Your task to perform on an android device: Play the last video I watched on Youtube Image 0: 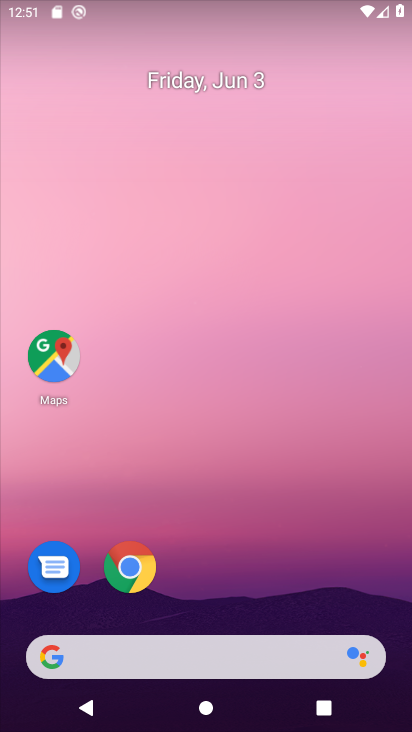
Step 0: drag from (228, 623) to (222, 333)
Your task to perform on an android device: Play the last video I watched on Youtube Image 1: 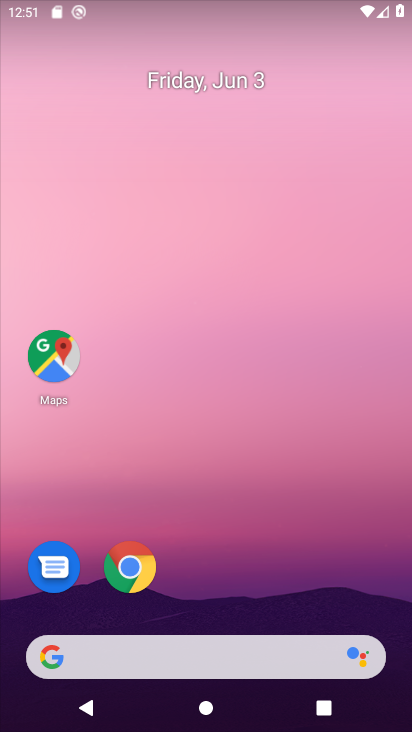
Step 1: drag from (230, 536) to (245, 233)
Your task to perform on an android device: Play the last video I watched on Youtube Image 2: 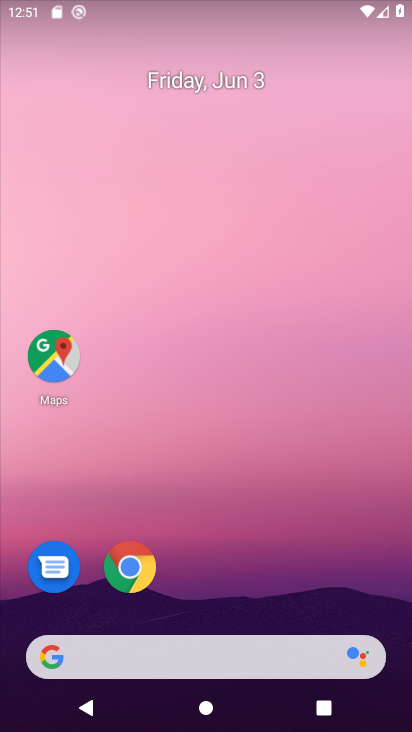
Step 2: drag from (189, 479) to (205, 266)
Your task to perform on an android device: Play the last video I watched on Youtube Image 3: 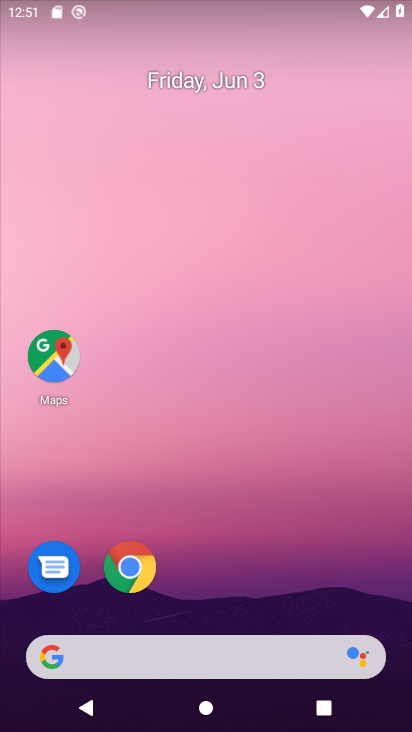
Step 3: drag from (162, 683) to (187, 263)
Your task to perform on an android device: Play the last video I watched on Youtube Image 4: 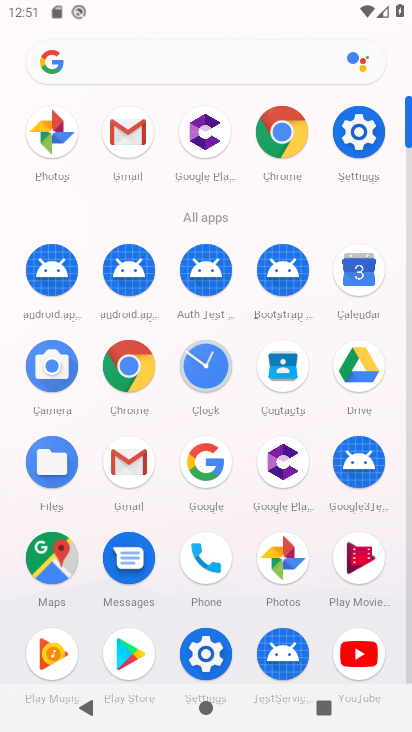
Step 4: click (348, 656)
Your task to perform on an android device: Play the last video I watched on Youtube Image 5: 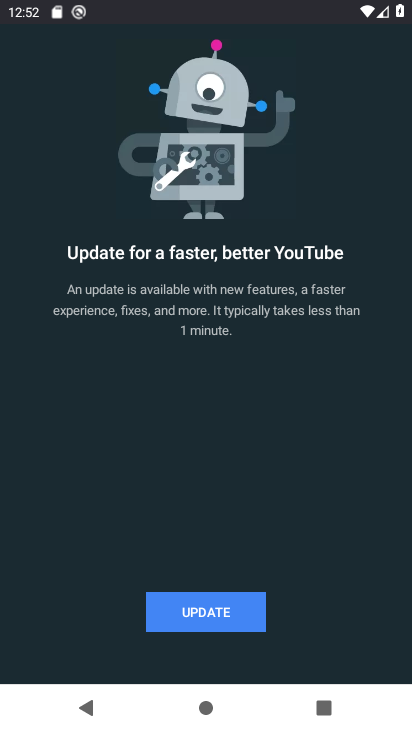
Step 5: task complete